Your task to perform on an android device: Go to Android settings Image 0: 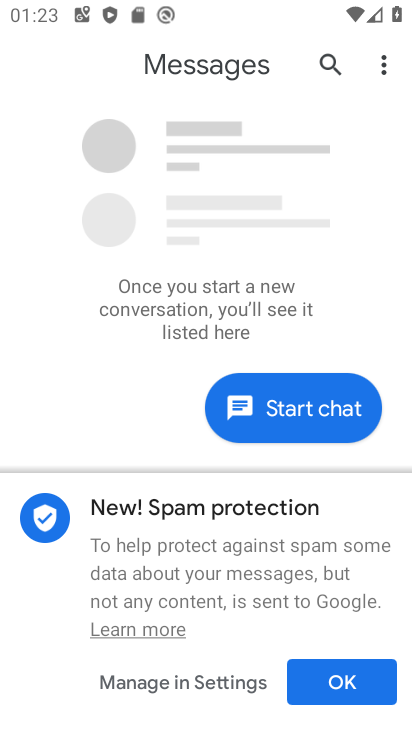
Step 0: press home button
Your task to perform on an android device: Go to Android settings Image 1: 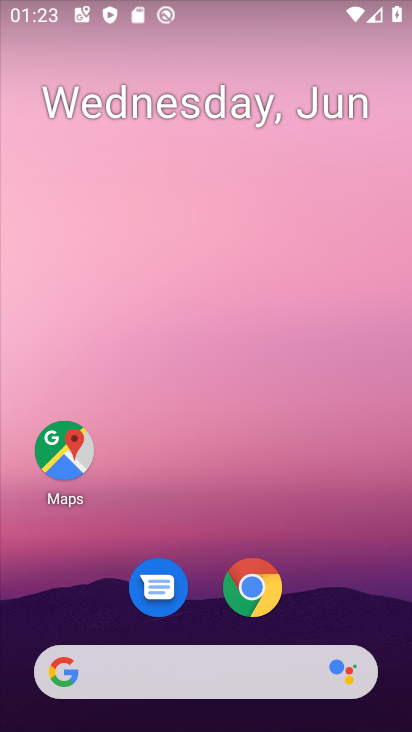
Step 1: click (312, 117)
Your task to perform on an android device: Go to Android settings Image 2: 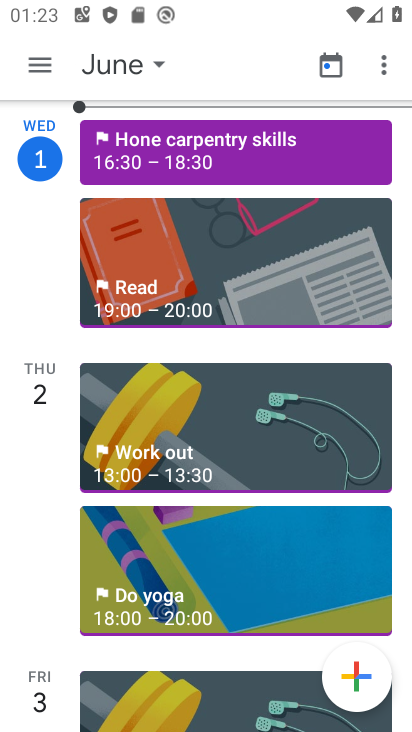
Step 2: press home button
Your task to perform on an android device: Go to Android settings Image 3: 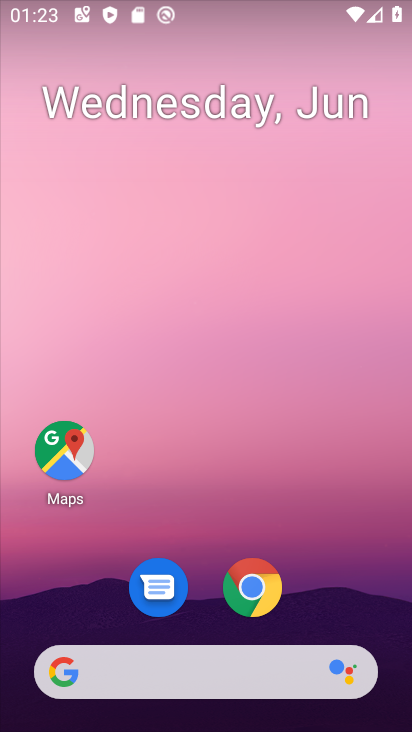
Step 3: drag from (325, 435) to (302, 201)
Your task to perform on an android device: Go to Android settings Image 4: 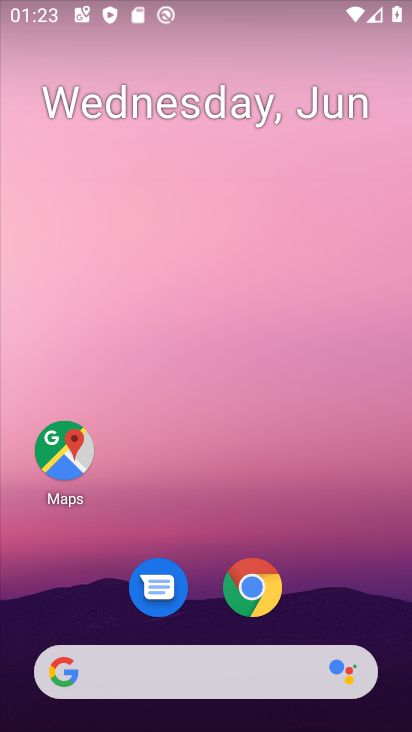
Step 4: drag from (324, 504) to (292, 65)
Your task to perform on an android device: Go to Android settings Image 5: 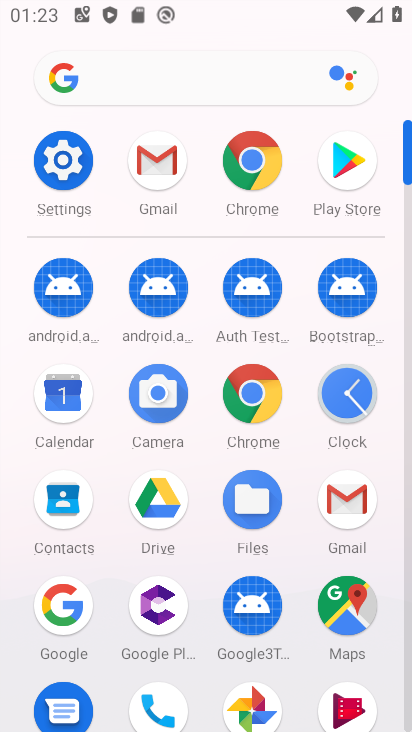
Step 5: click (65, 155)
Your task to perform on an android device: Go to Android settings Image 6: 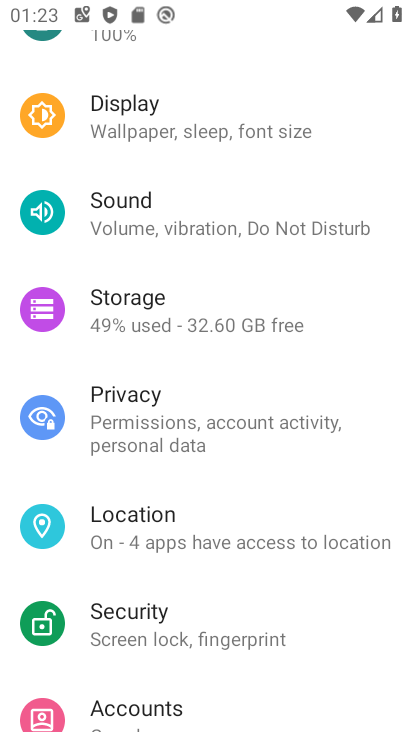
Step 6: task complete